Your task to perform on an android device: Open settings Image 0: 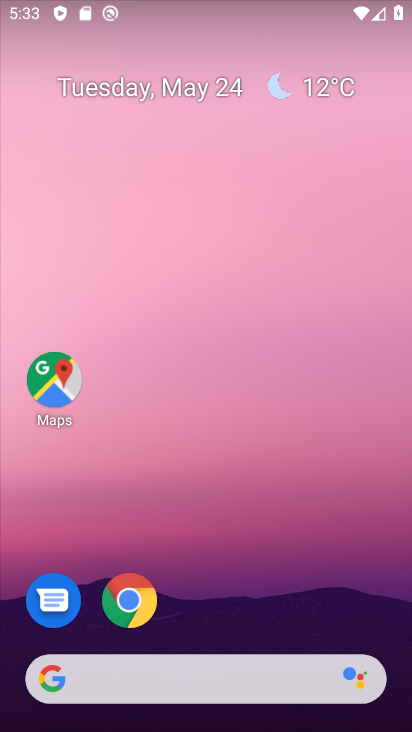
Step 0: drag from (262, 684) to (280, 51)
Your task to perform on an android device: Open settings Image 1: 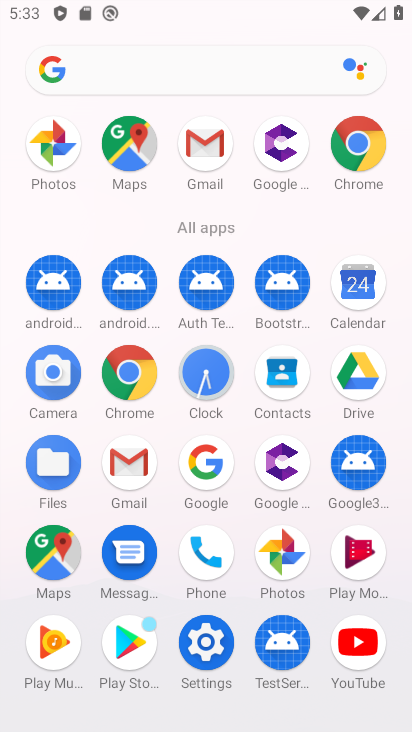
Step 1: click (186, 653)
Your task to perform on an android device: Open settings Image 2: 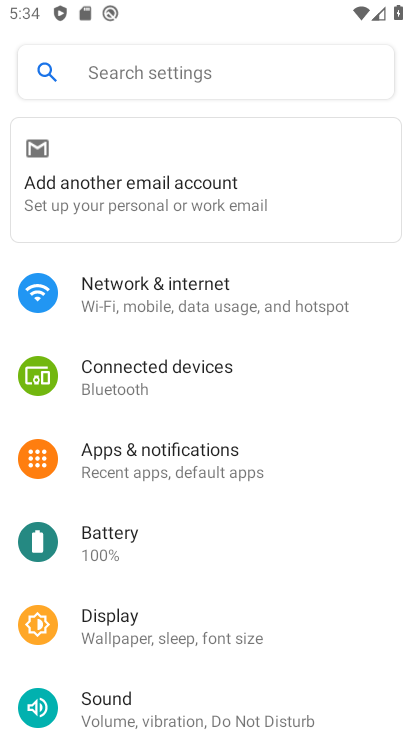
Step 2: task complete